Your task to perform on an android device: snooze an email in the gmail app Image 0: 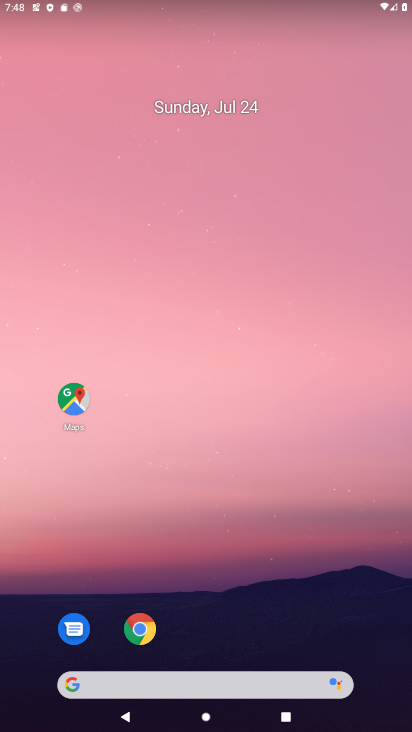
Step 0: press home button
Your task to perform on an android device: snooze an email in the gmail app Image 1: 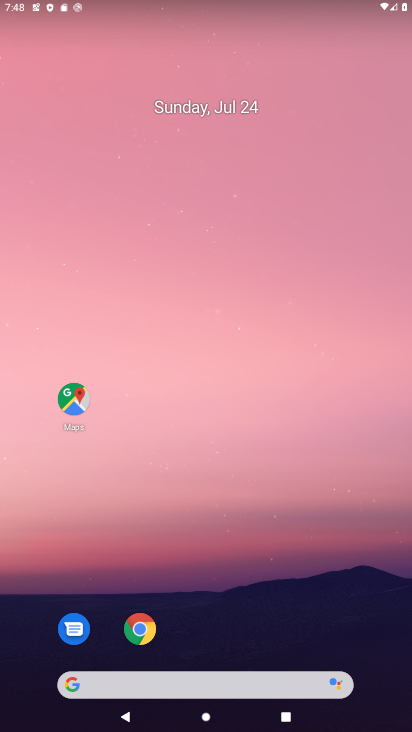
Step 1: drag from (349, 616) to (352, 132)
Your task to perform on an android device: snooze an email in the gmail app Image 2: 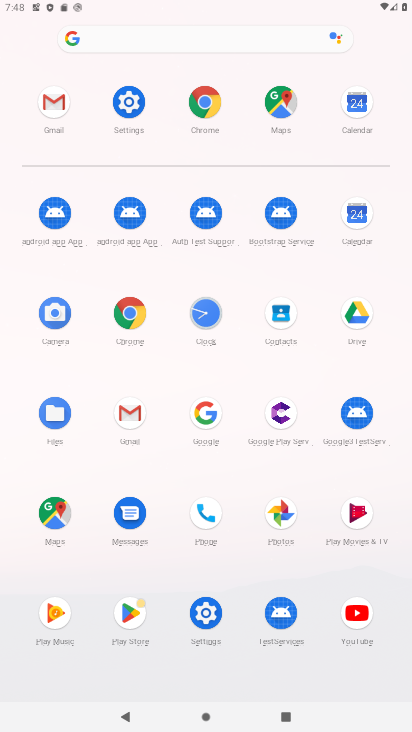
Step 2: click (125, 418)
Your task to perform on an android device: snooze an email in the gmail app Image 3: 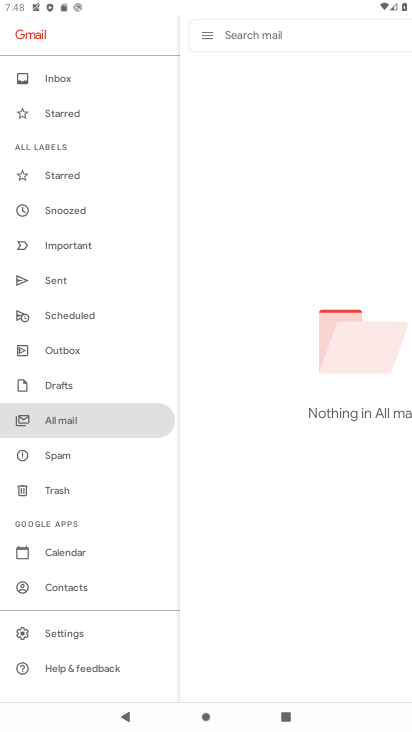
Step 3: drag from (136, 119) to (144, 261)
Your task to perform on an android device: snooze an email in the gmail app Image 4: 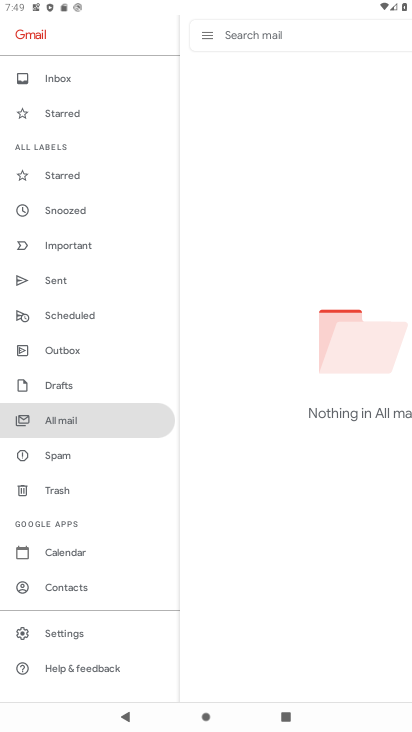
Step 4: click (97, 210)
Your task to perform on an android device: snooze an email in the gmail app Image 5: 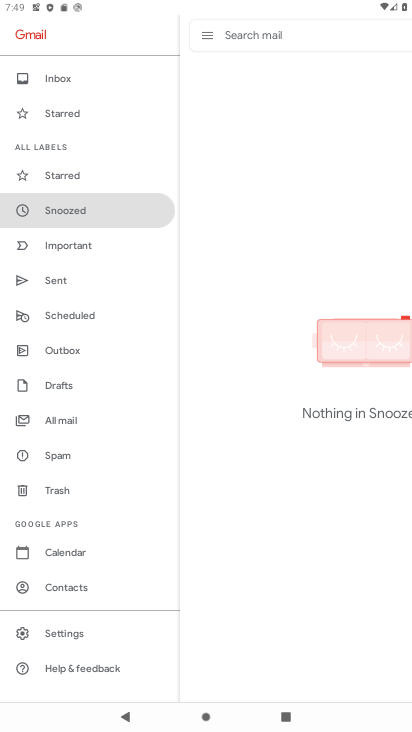
Step 5: task complete